Your task to perform on an android device: toggle airplane mode Image 0: 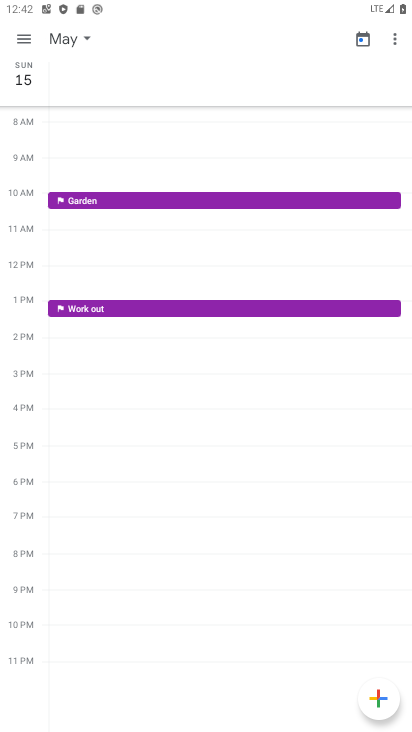
Step 0: press home button
Your task to perform on an android device: toggle airplane mode Image 1: 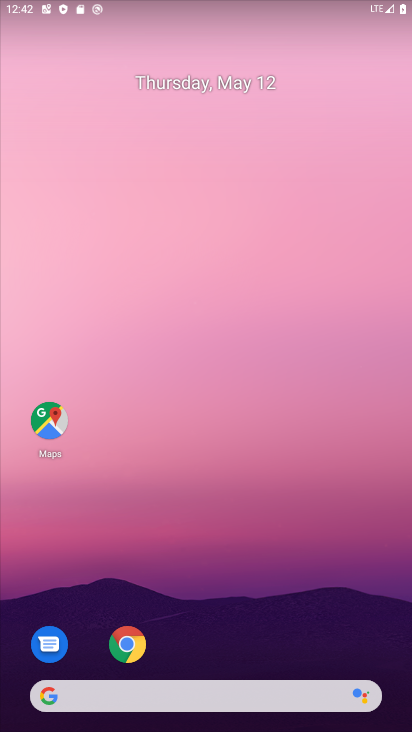
Step 1: drag from (250, 575) to (228, 56)
Your task to perform on an android device: toggle airplane mode Image 2: 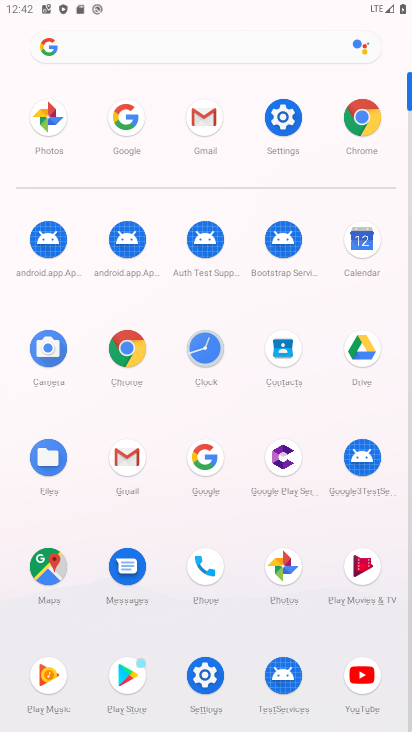
Step 2: click (297, 109)
Your task to perform on an android device: toggle airplane mode Image 3: 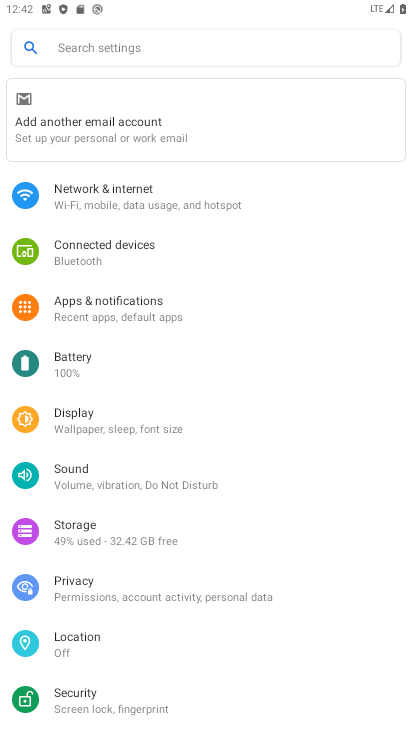
Step 3: click (139, 196)
Your task to perform on an android device: toggle airplane mode Image 4: 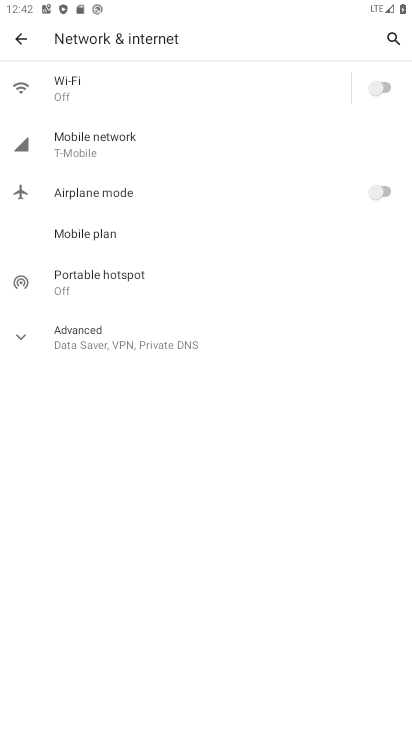
Step 4: click (378, 191)
Your task to perform on an android device: toggle airplane mode Image 5: 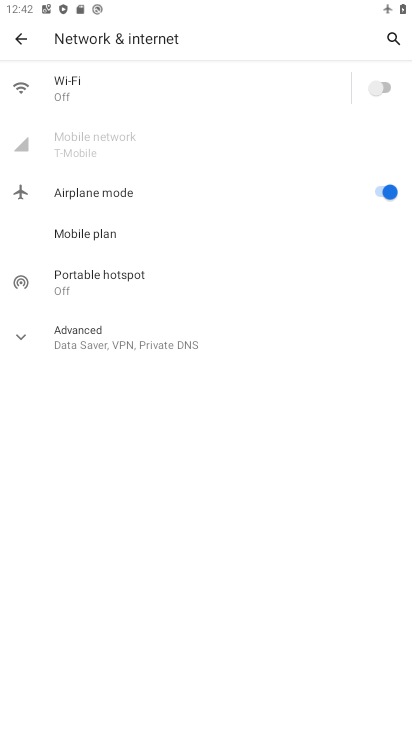
Step 5: task complete